Your task to perform on an android device: View the shopping cart on ebay. Add jbl flip 4 to the cart on ebay, then select checkout. Image 0: 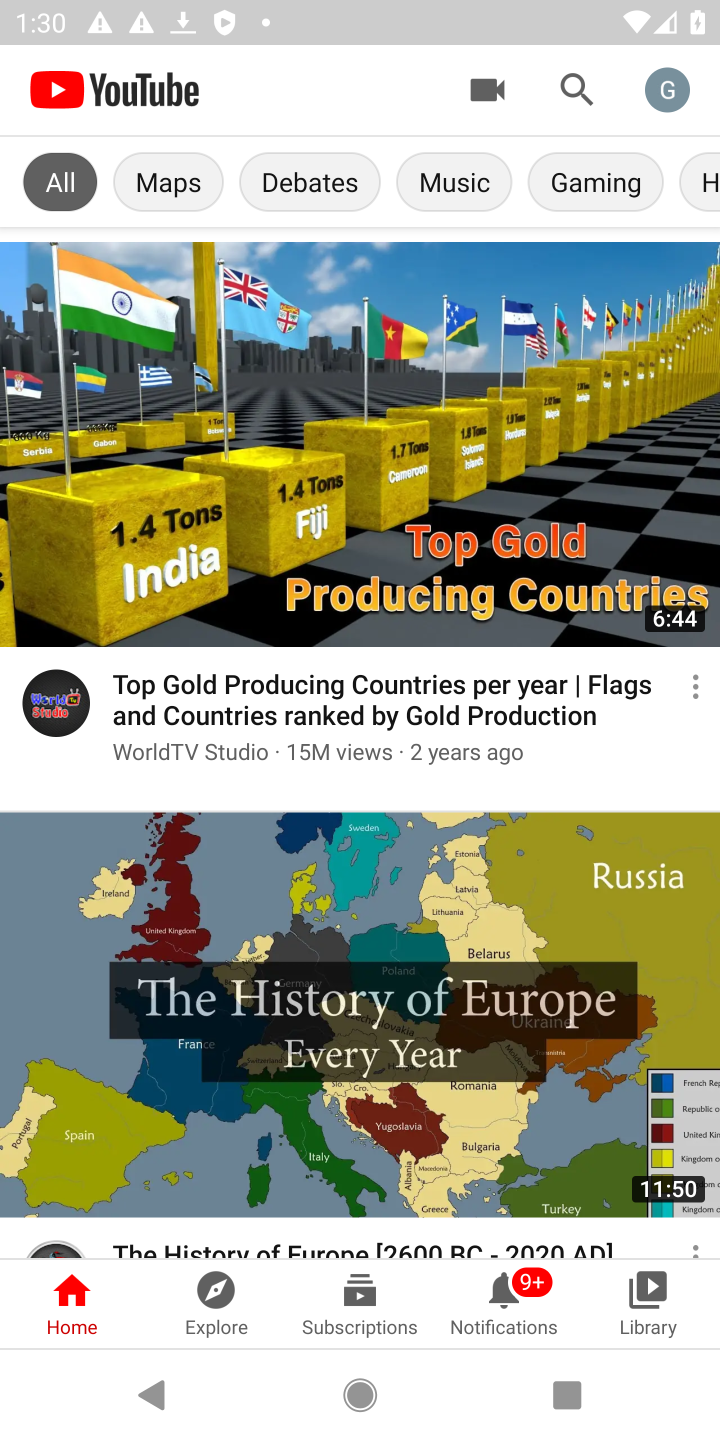
Step 0: press home button
Your task to perform on an android device: View the shopping cart on ebay. Add jbl flip 4 to the cart on ebay, then select checkout. Image 1: 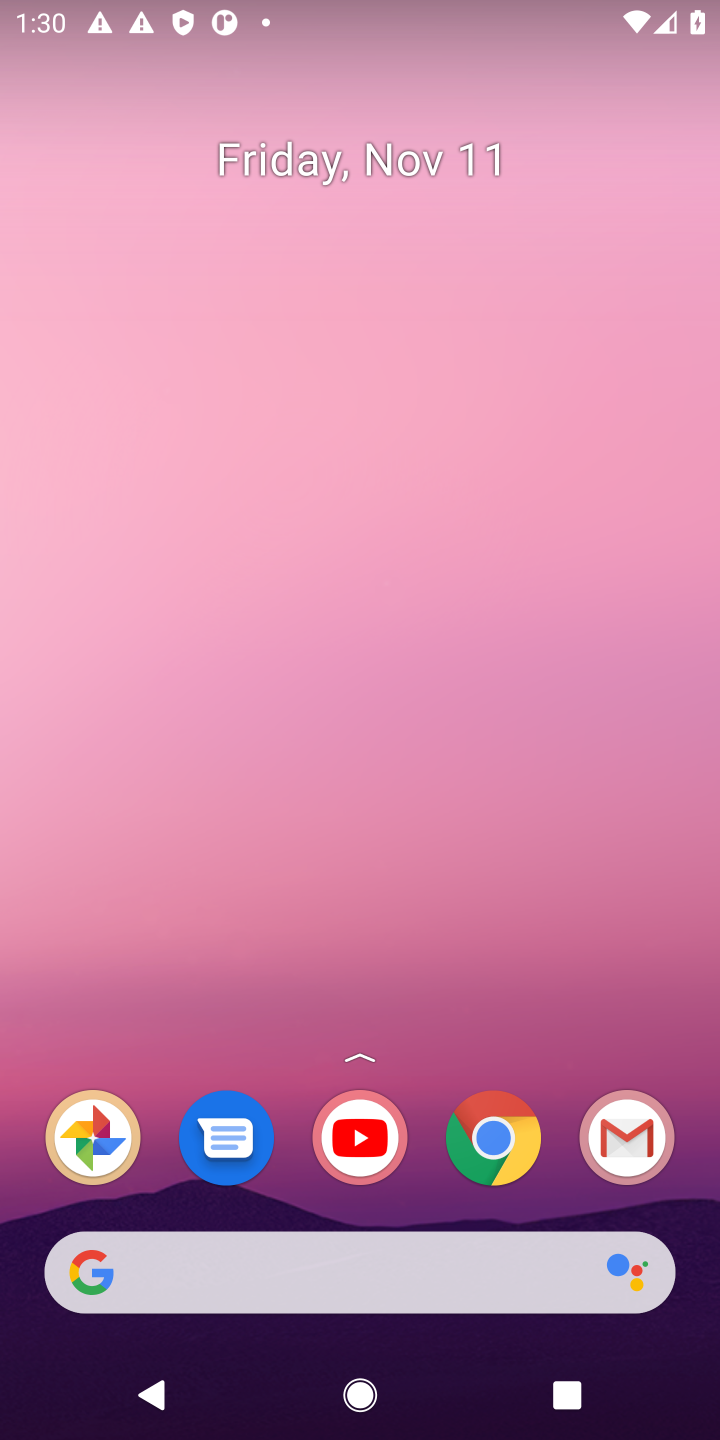
Step 1: click (332, 1258)
Your task to perform on an android device: View the shopping cart on ebay. Add jbl flip 4 to the cart on ebay, then select checkout. Image 2: 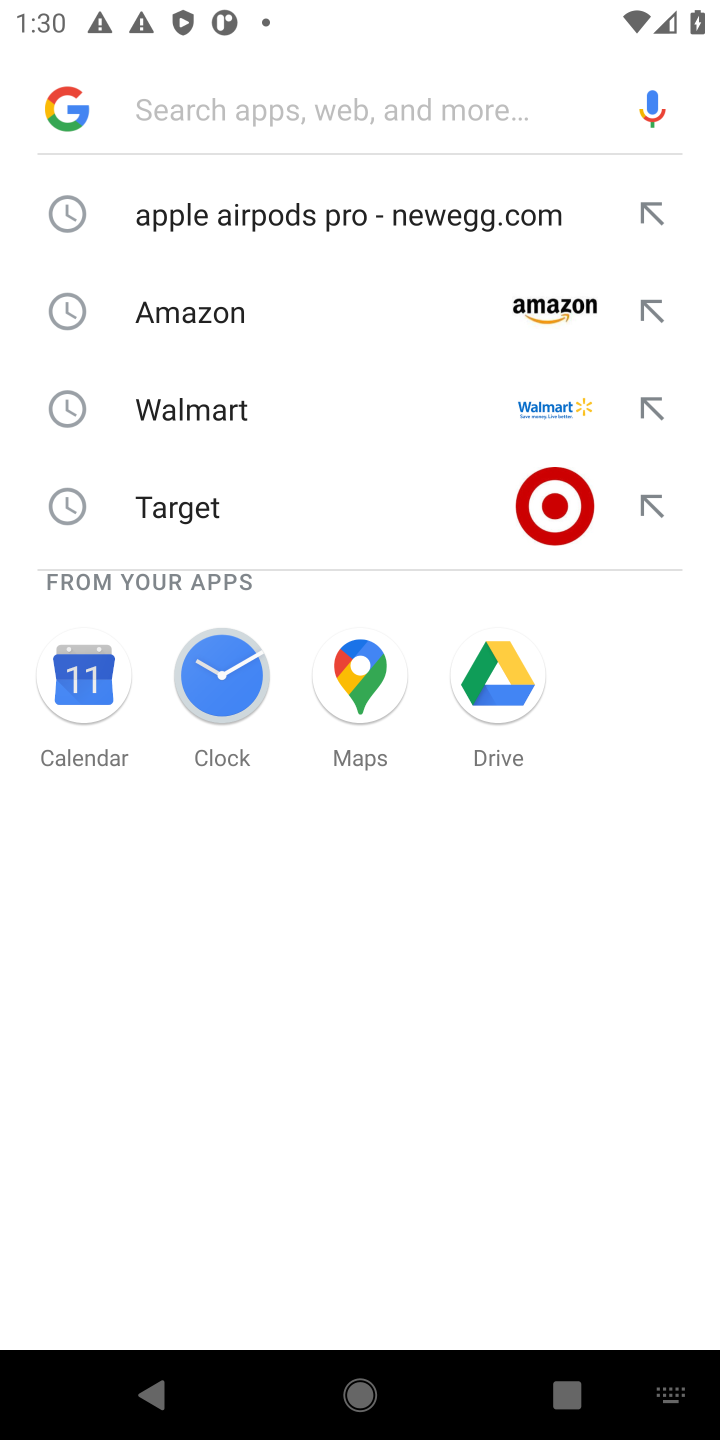
Step 2: type "jbl flip 4 on ebay"
Your task to perform on an android device: View the shopping cart on ebay. Add jbl flip 4 to the cart on ebay, then select checkout. Image 3: 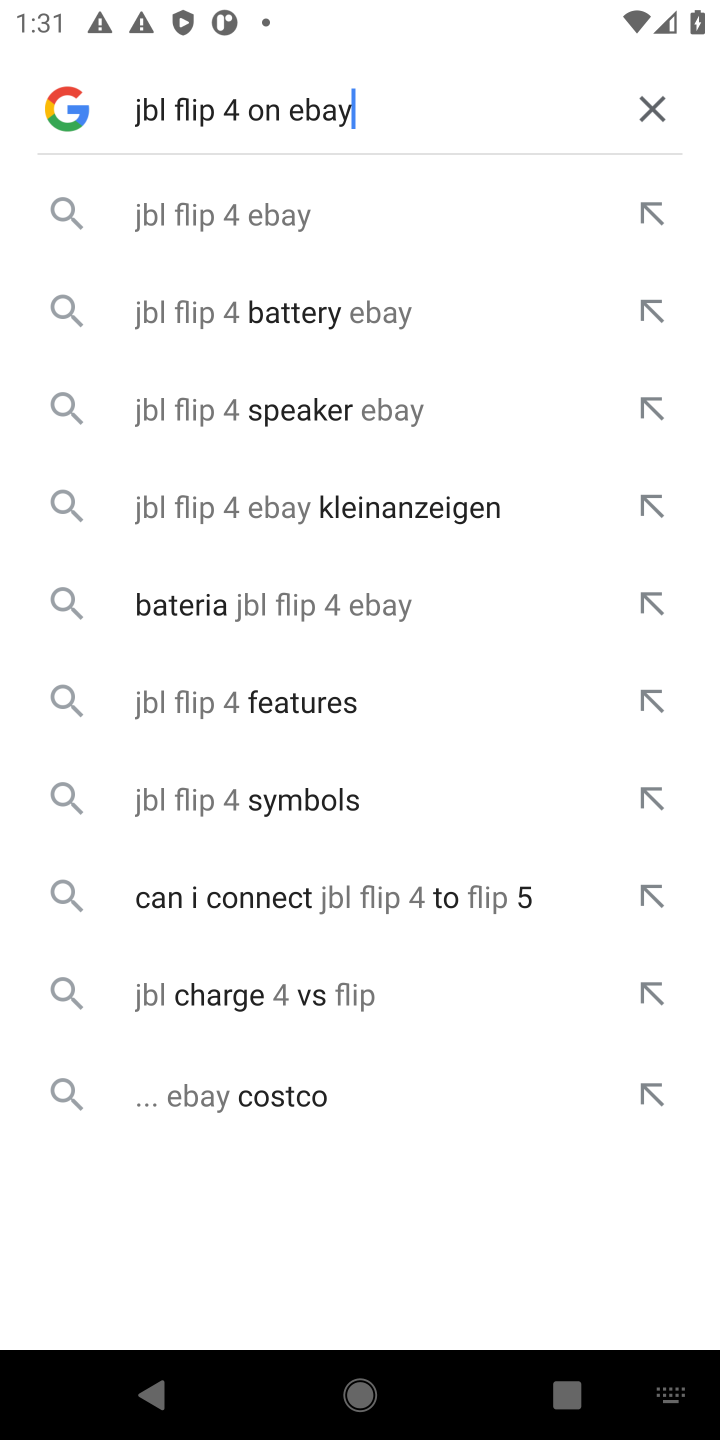
Step 3: click (269, 217)
Your task to perform on an android device: View the shopping cart on ebay. Add jbl flip 4 to the cart on ebay, then select checkout. Image 4: 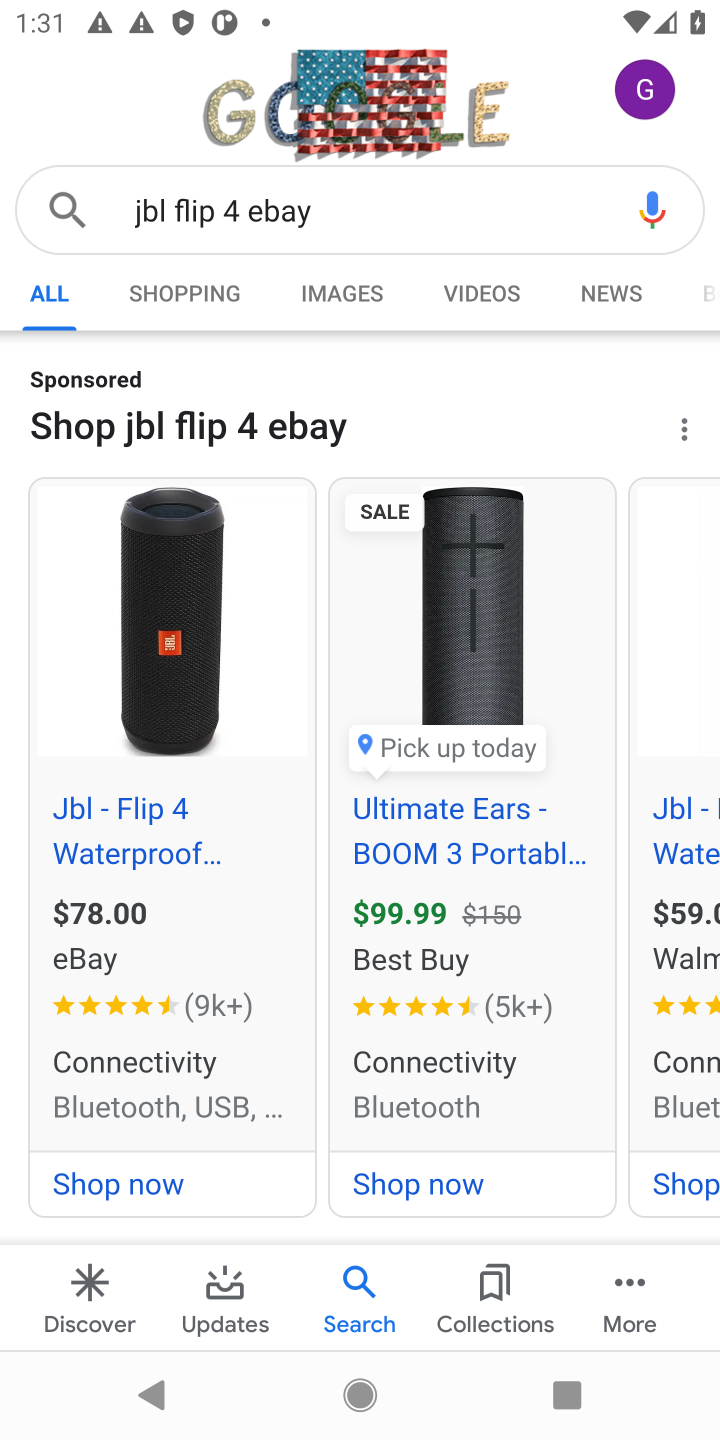
Step 4: click (143, 838)
Your task to perform on an android device: View the shopping cart on ebay. Add jbl flip 4 to the cart on ebay, then select checkout. Image 5: 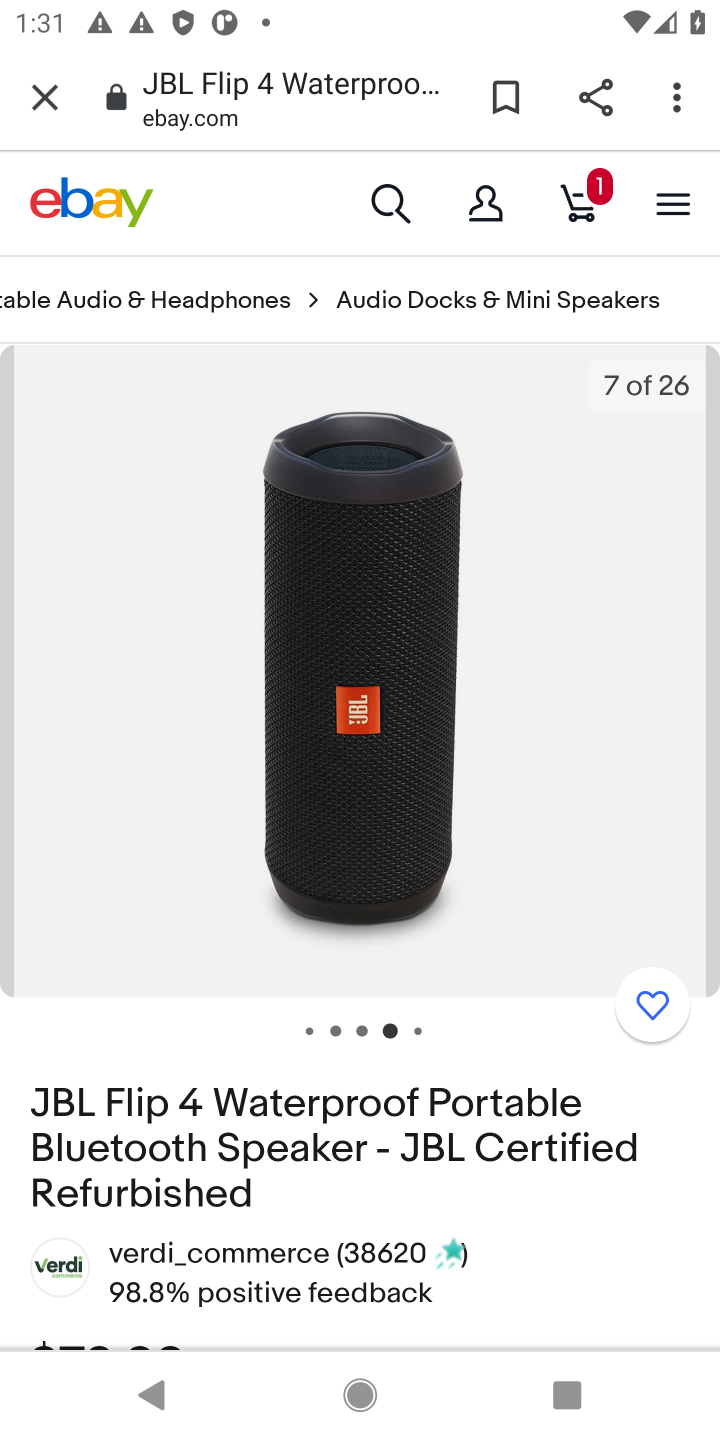
Step 5: drag from (564, 1237) to (503, 402)
Your task to perform on an android device: View the shopping cart on ebay. Add jbl flip 4 to the cart on ebay, then select checkout. Image 6: 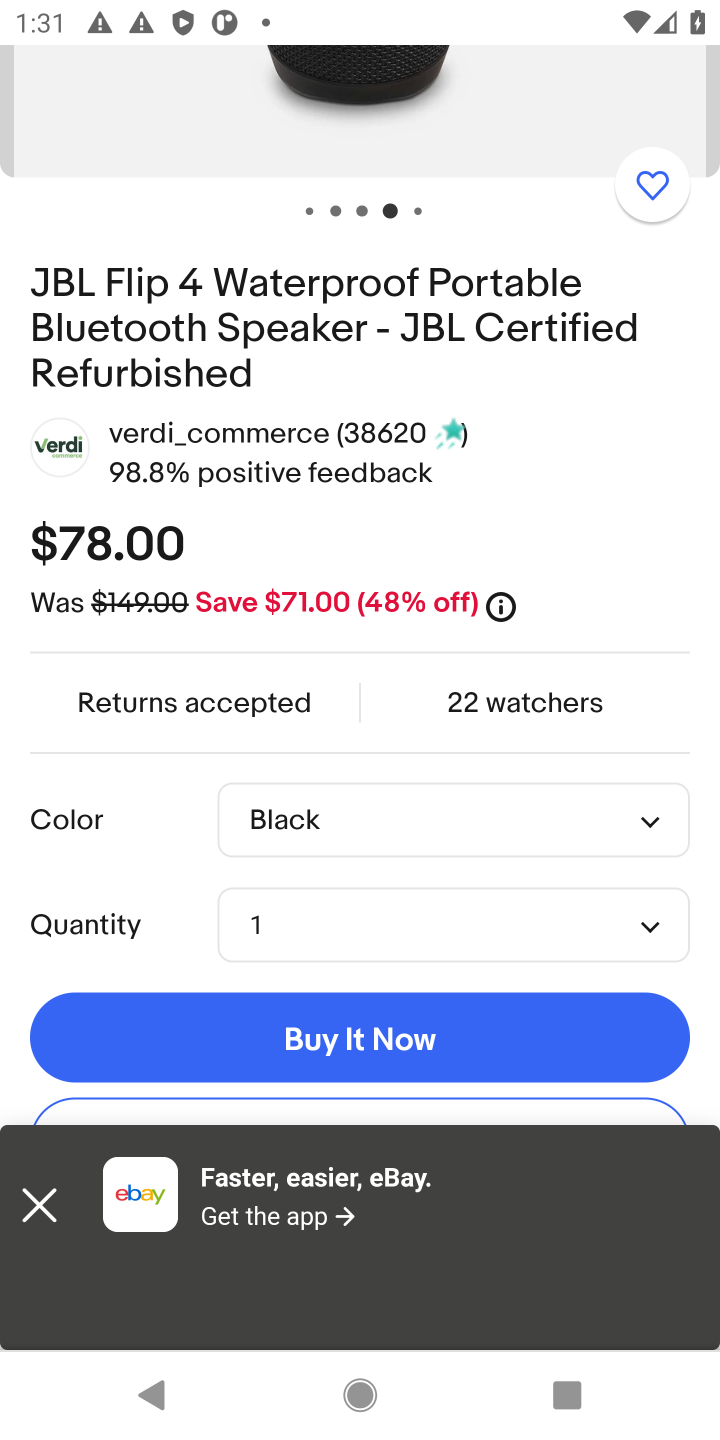
Step 6: click (37, 1206)
Your task to perform on an android device: View the shopping cart on ebay. Add jbl flip 4 to the cart on ebay, then select checkout. Image 7: 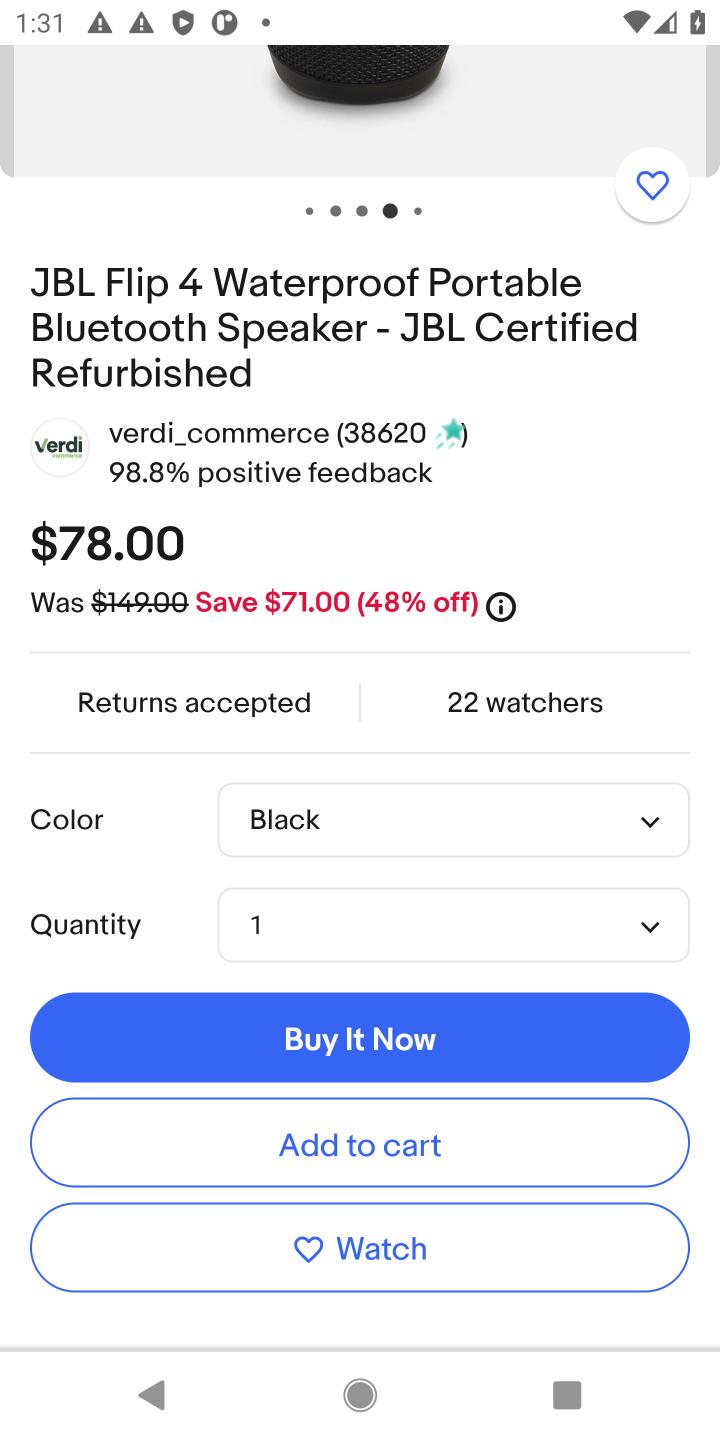
Step 7: click (335, 1145)
Your task to perform on an android device: View the shopping cart on ebay. Add jbl flip 4 to the cart on ebay, then select checkout. Image 8: 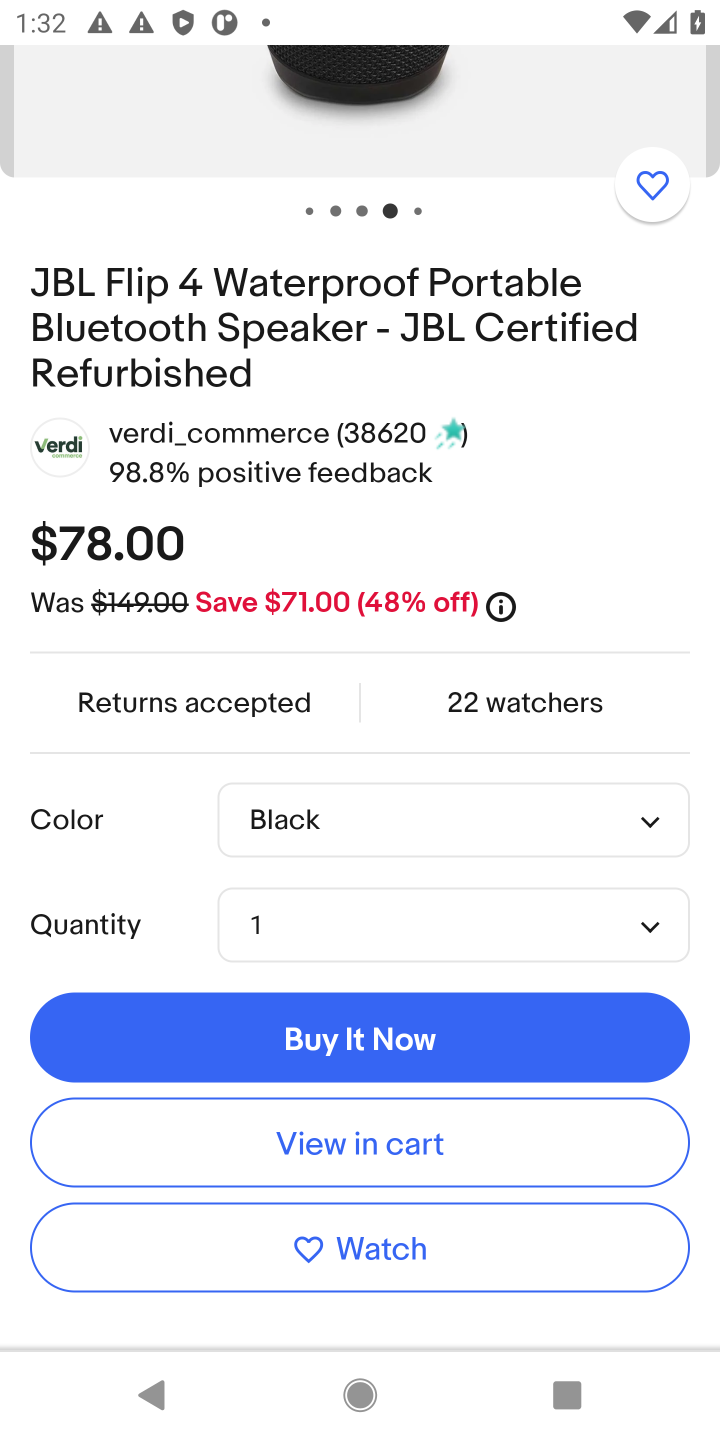
Step 8: click (335, 1145)
Your task to perform on an android device: View the shopping cart on ebay. Add jbl flip 4 to the cart on ebay, then select checkout. Image 9: 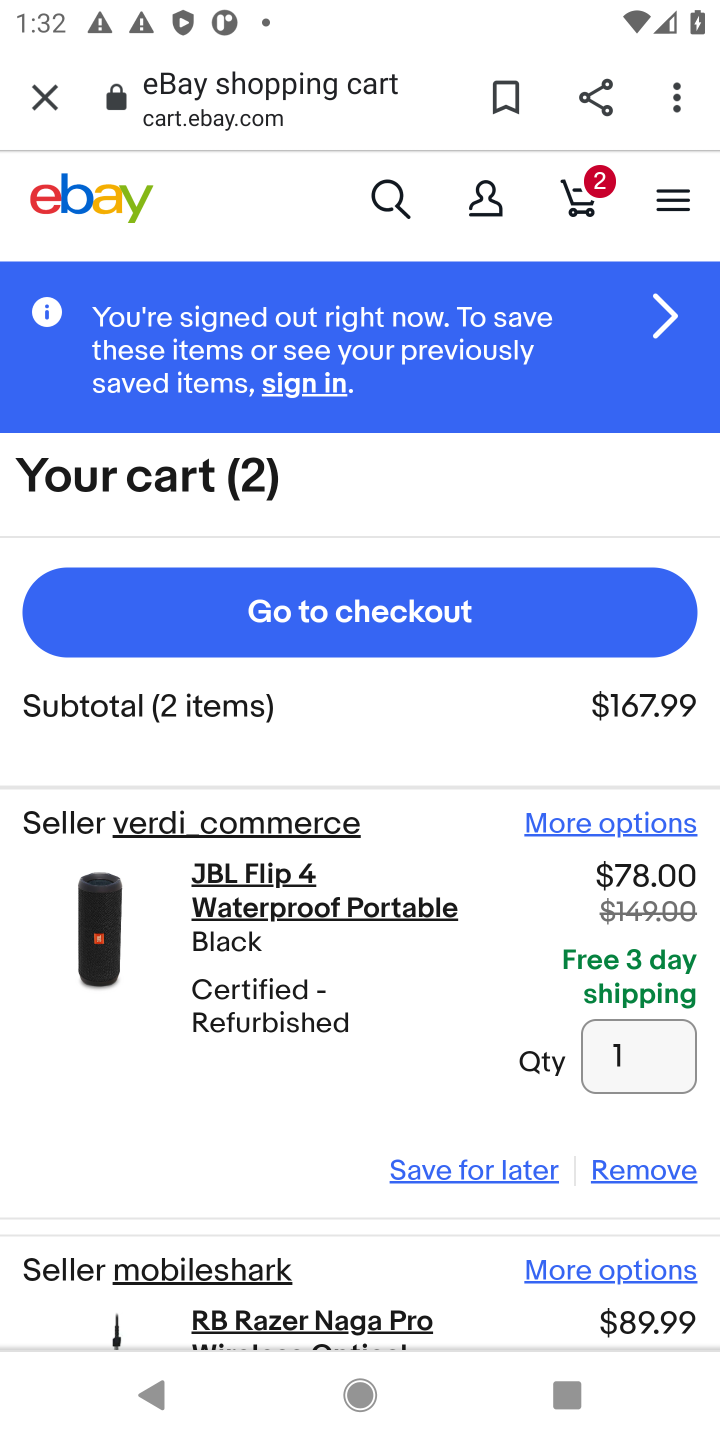
Step 9: click (414, 626)
Your task to perform on an android device: View the shopping cart on ebay. Add jbl flip 4 to the cart on ebay, then select checkout. Image 10: 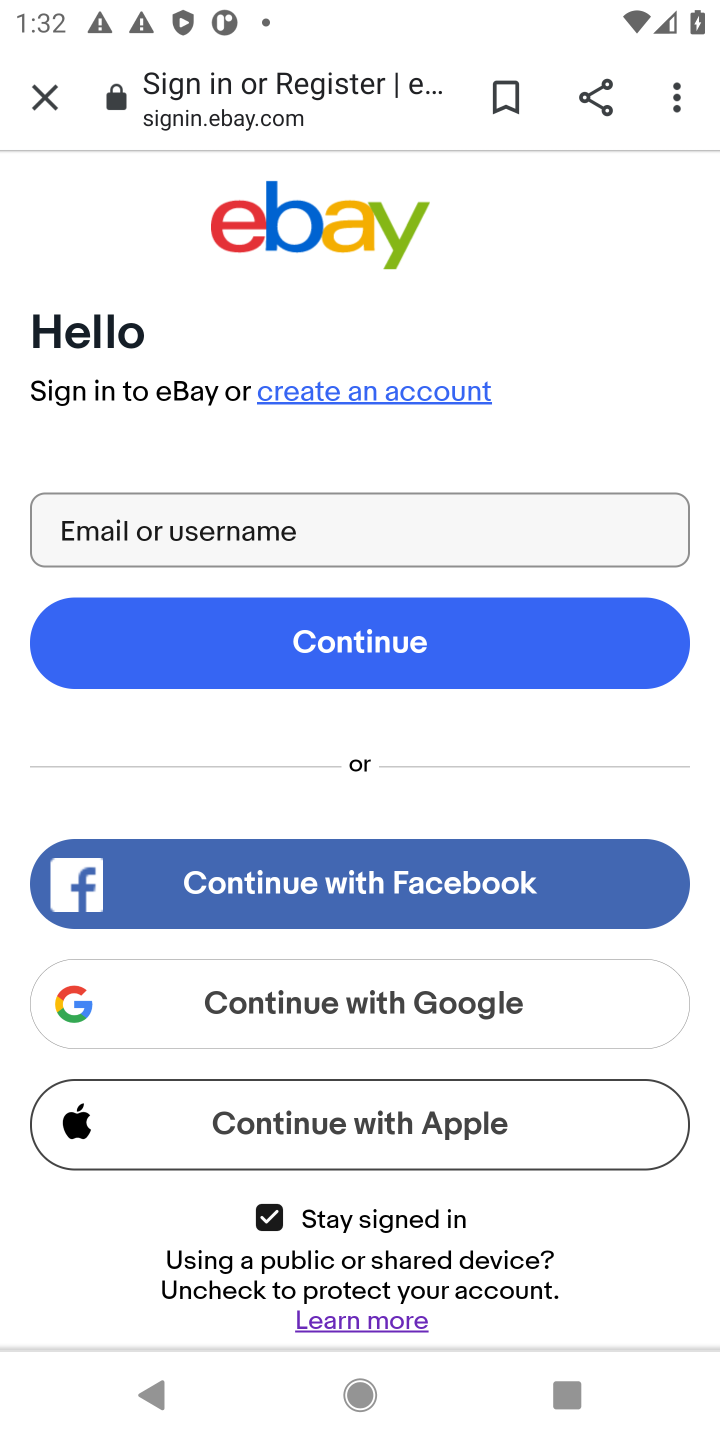
Step 10: task complete